Your task to perform on an android device: What is the news today? Image 0: 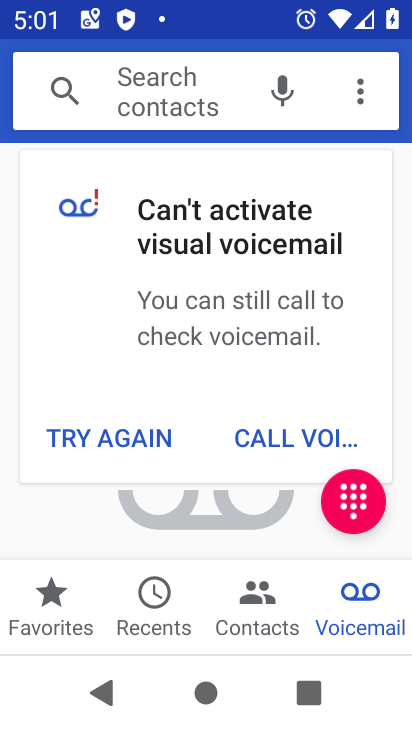
Step 0: press home button
Your task to perform on an android device: What is the news today? Image 1: 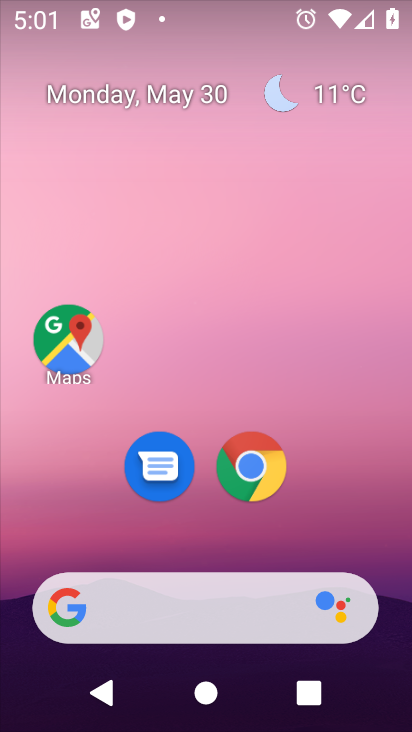
Step 1: drag from (350, 467) to (290, 99)
Your task to perform on an android device: What is the news today? Image 2: 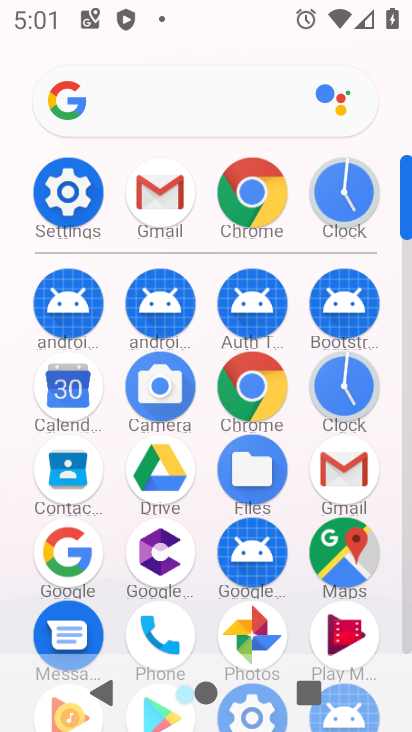
Step 2: click (240, 388)
Your task to perform on an android device: What is the news today? Image 3: 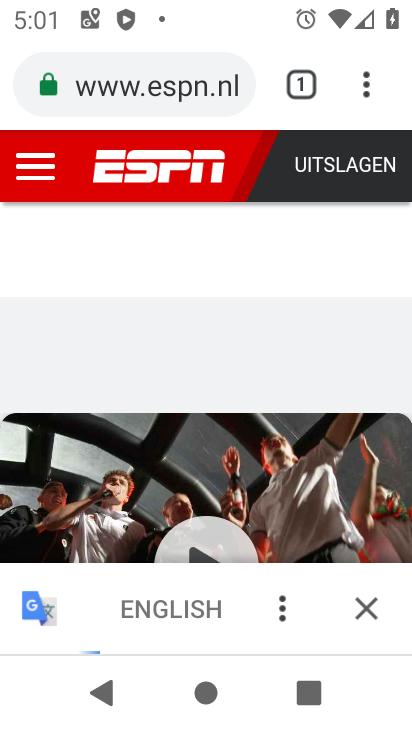
Step 3: click (163, 74)
Your task to perform on an android device: What is the news today? Image 4: 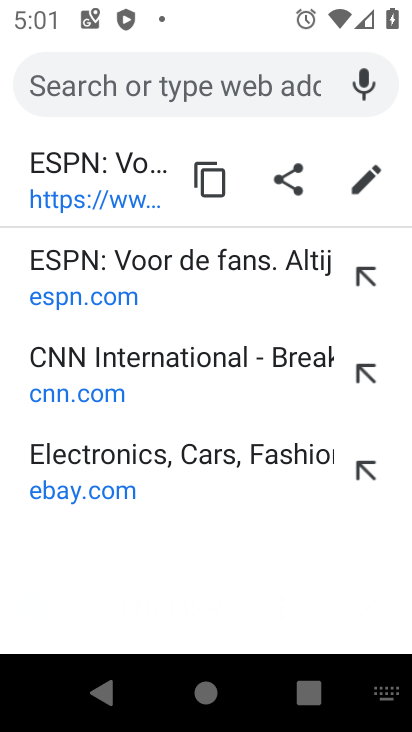
Step 4: type "news"
Your task to perform on an android device: What is the news today? Image 5: 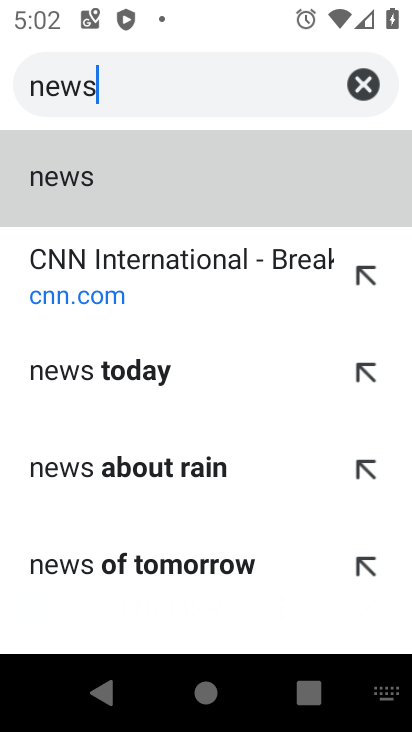
Step 5: click (72, 165)
Your task to perform on an android device: What is the news today? Image 6: 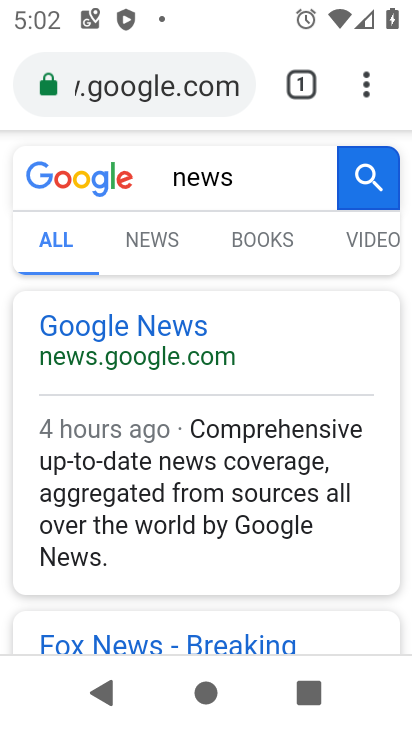
Step 6: click (139, 236)
Your task to perform on an android device: What is the news today? Image 7: 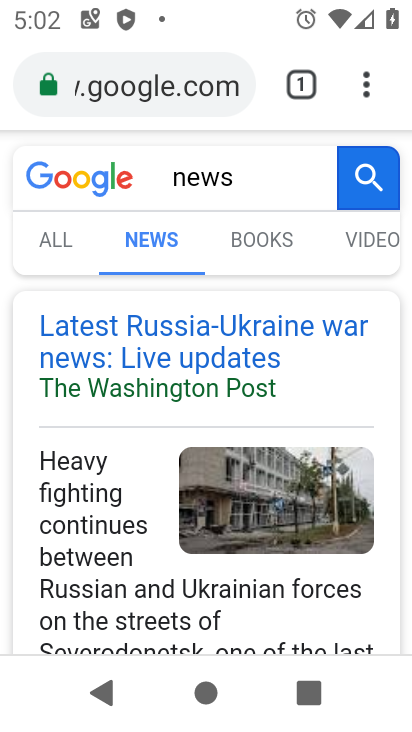
Step 7: task complete